Your task to perform on an android device: Search for vegetarian restaurants on Maps Image 0: 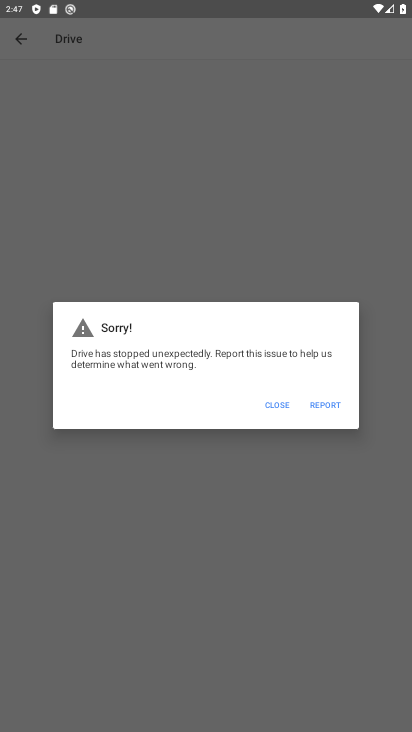
Step 0: press home button
Your task to perform on an android device: Search for vegetarian restaurants on Maps Image 1: 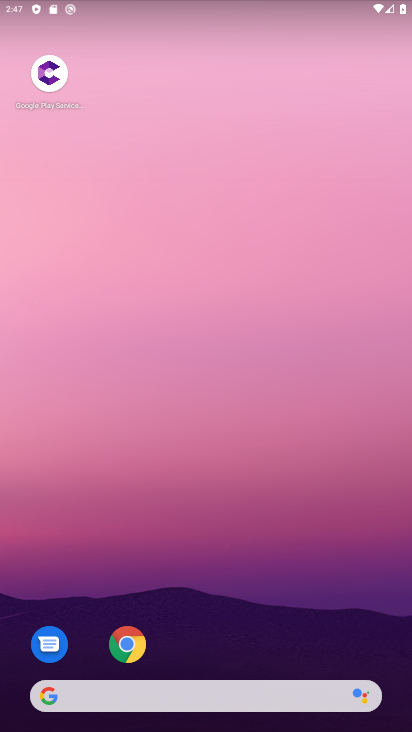
Step 1: drag from (225, 634) to (188, 52)
Your task to perform on an android device: Search for vegetarian restaurants on Maps Image 2: 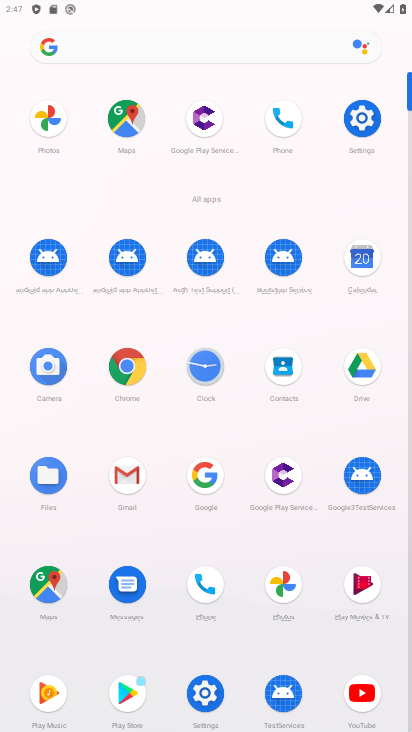
Step 2: click (126, 120)
Your task to perform on an android device: Search for vegetarian restaurants on Maps Image 3: 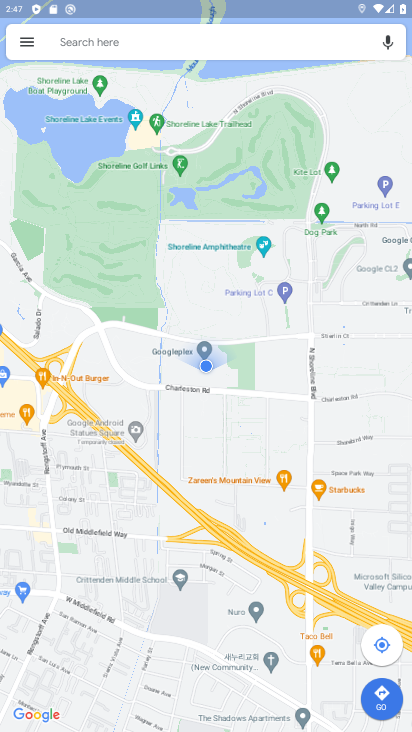
Step 3: click (149, 44)
Your task to perform on an android device: Search for vegetarian restaurants on Maps Image 4: 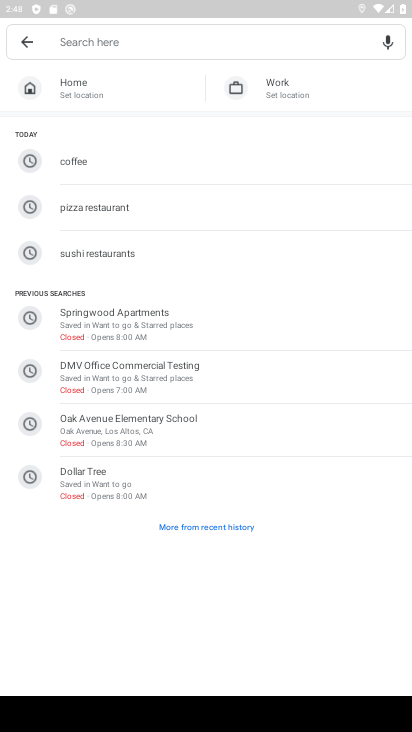
Step 4: type "vegetarian restaurants"
Your task to perform on an android device: Search for vegetarian restaurants on Maps Image 5: 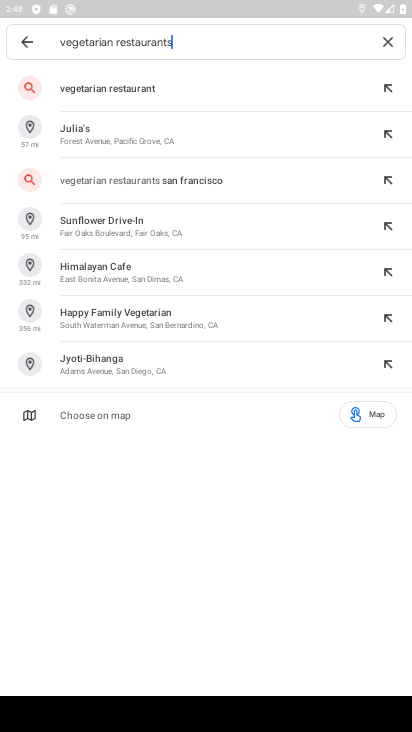
Step 5: click (112, 86)
Your task to perform on an android device: Search for vegetarian restaurants on Maps Image 6: 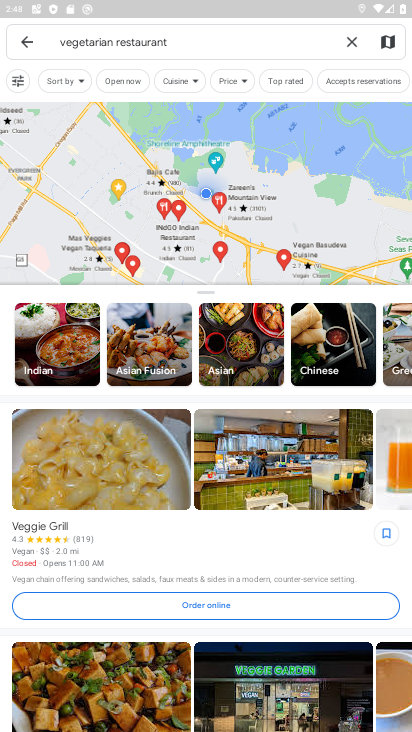
Step 6: task complete